Your task to perform on an android device: Go to Amazon Image 0: 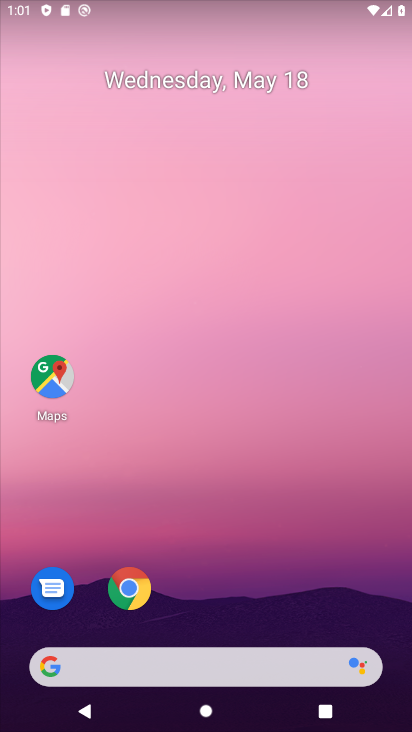
Step 0: drag from (338, 576) to (342, 87)
Your task to perform on an android device: Go to Amazon Image 1: 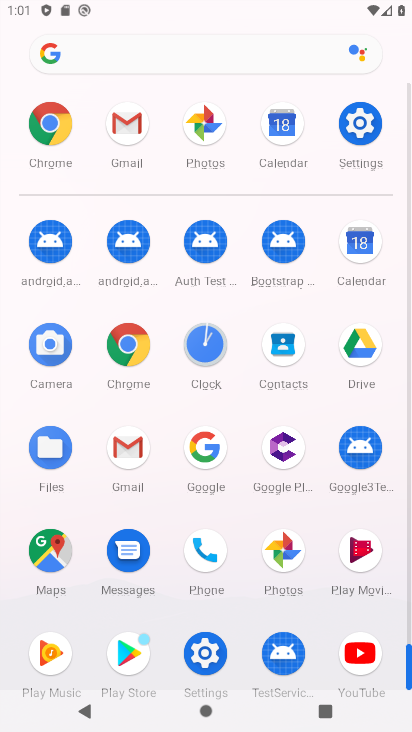
Step 1: click (137, 356)
Your task to perform on an android device: Go to Amazon Image 2: 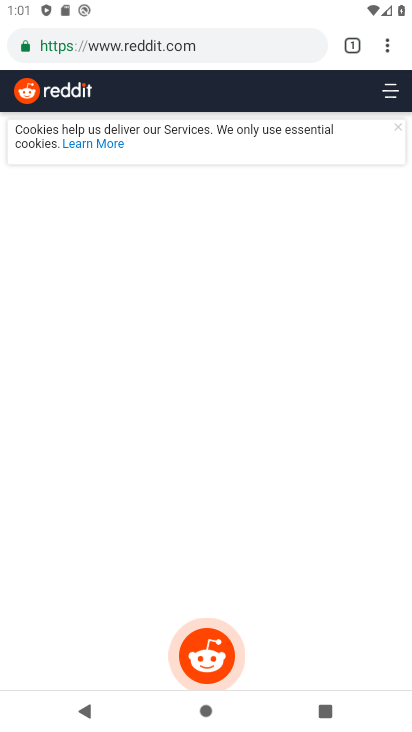
Step 2: press back button
Your task to perform on an android device: Go to Amazon Image 3: 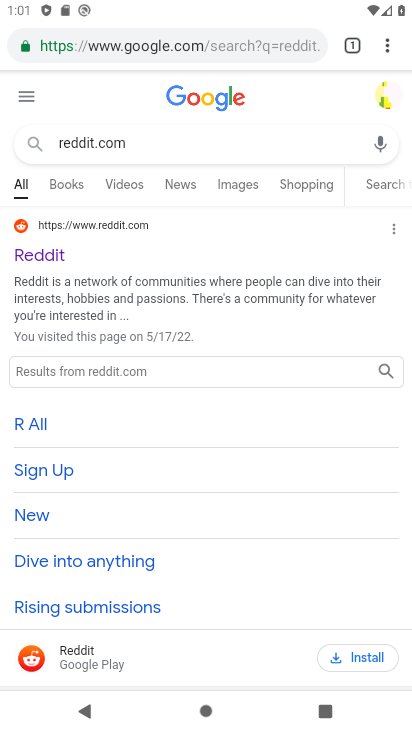
Step 3: press back button
Your task to perform on an android device: Go to Amazon Image 4: 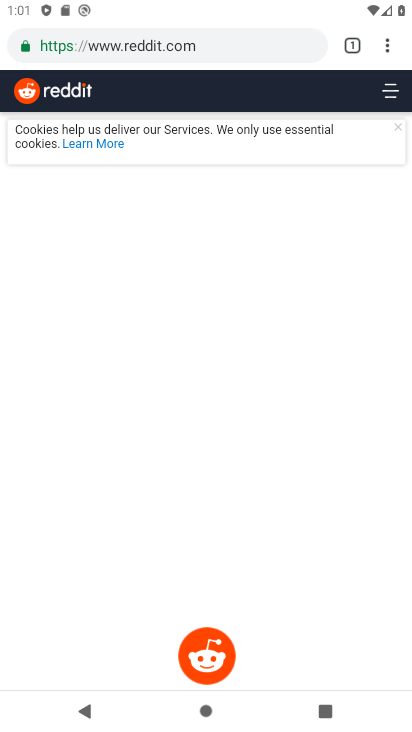
Step 4: press back button
Your task to perform on an android device: Go to Amazon Image 5: 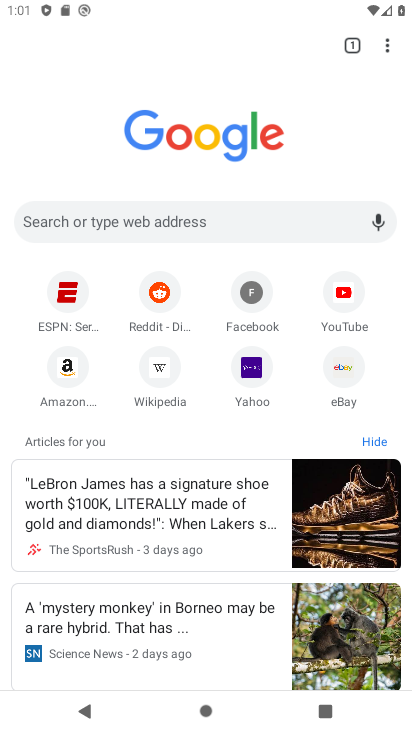
Step 5: click (67, 372)
Your task to perform on an android device: Go to Amazon Image 6: 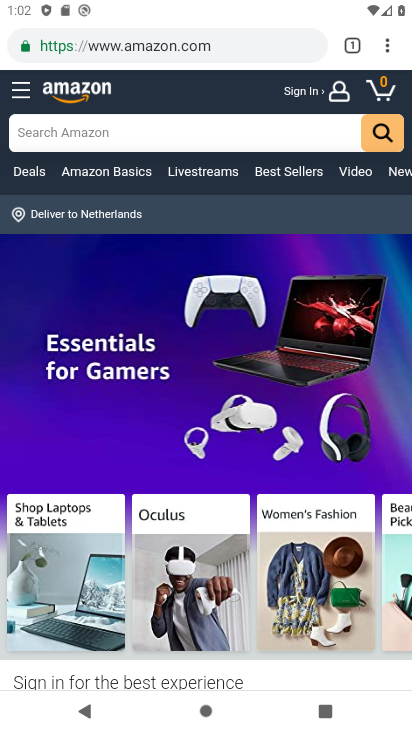
Step 6: task complete